Your task to perform on an android device: Turn on the flashlight Image 0: 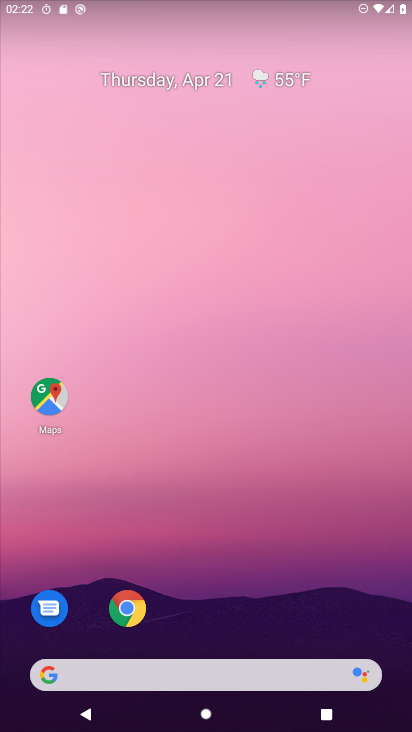
Step 0: drag from (169, 492) to (82, 38)
Your task to perform on an android device: Turn on the flashlight Image 1: 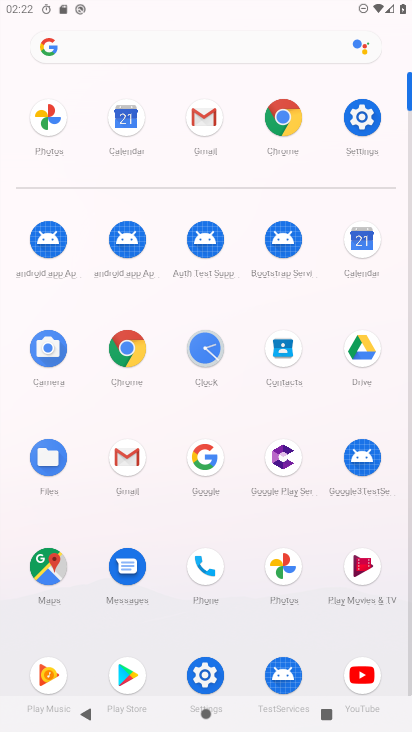
Step 1: click (360, 127)
Your task to perform on an android device: Turn on the flashlight Image 2: 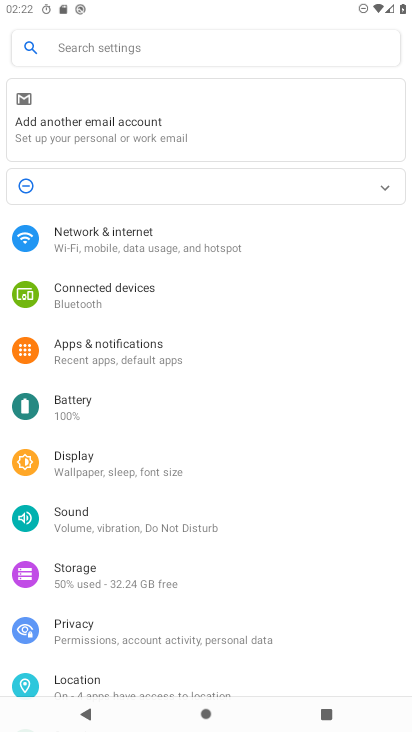
Step 2: click (206, 58)
Your task to perform on an android device: Turn on the flashlight Image 3: 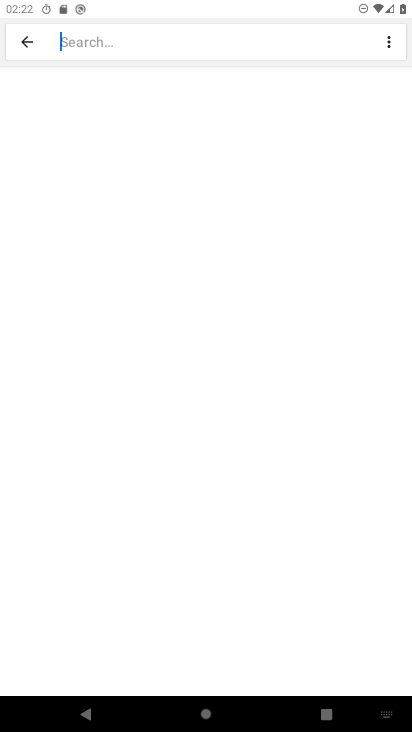
Step 3: type "flashlight"
Your task to perform on an android device: Turn on the flashlight Image 4: 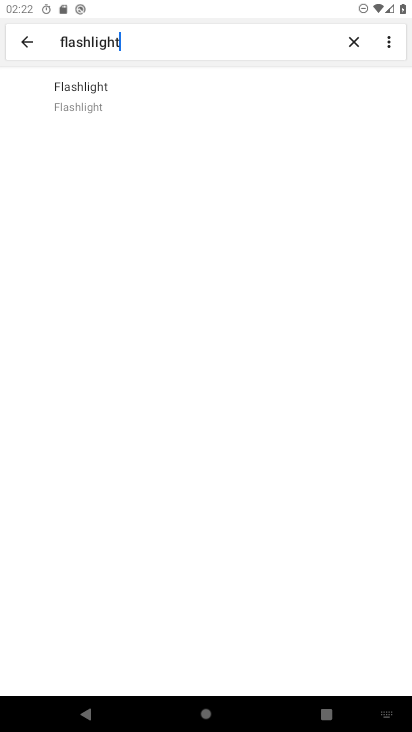
Step 4: click (65, 108)
Your task to perform on an android device: Turn on the flashlight Image 5: 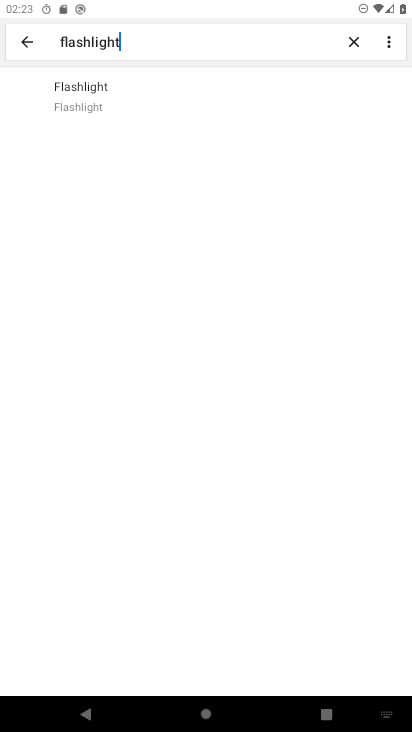
Step 5: click (85, 102)
Your task to perform on an android device: Turn on the flashlight Image 6: 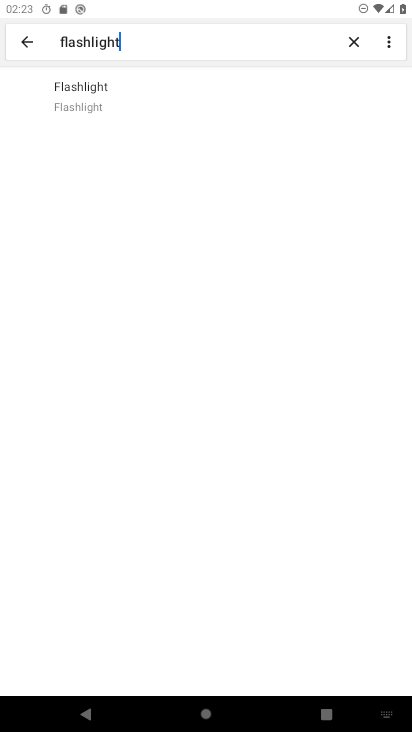
Step 6: click (85, 102)
Your task to perform on an android device: Turn on the flashlight Image 7: 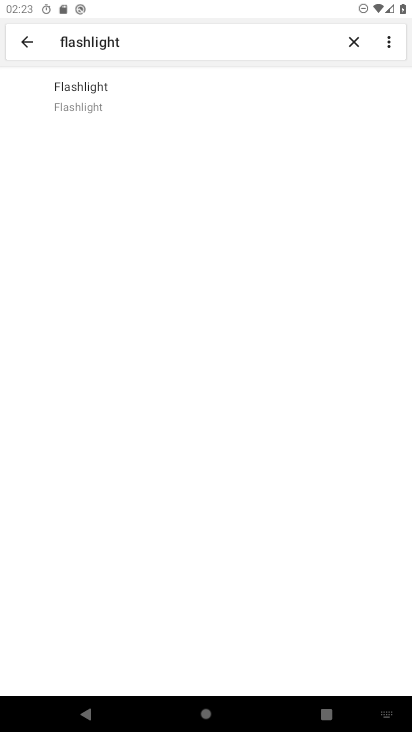
Step 7: click (94, 103)
Your task to perform on an android device: Turn on the flashlight Image 8: 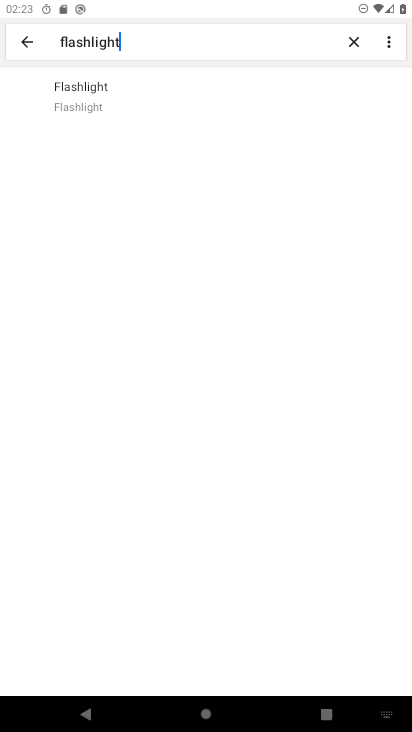
Step 8: task complete